Your task to perform on an android device: Search for bose quietcomfort 35 on newegg, select the first entry, add it to the cart, then select checkout. Image 0: 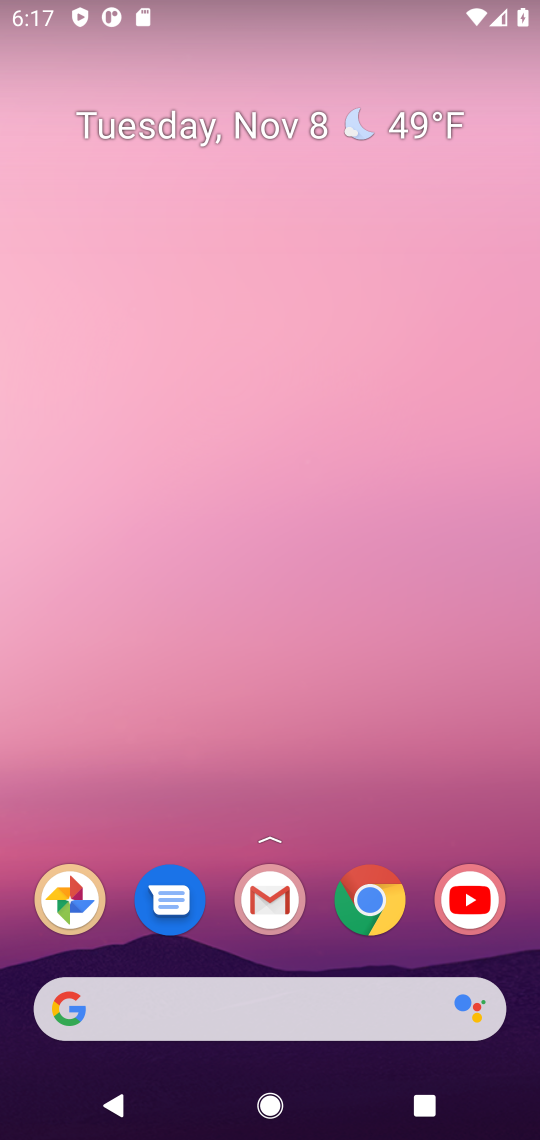
Step 0: drag from (159, 995) to (260, 183)
Your task to perform on an android device: Search for bose quietcomfort 35 on newegg, select the first entry, add it to the cart, then select checkout. Image 1: 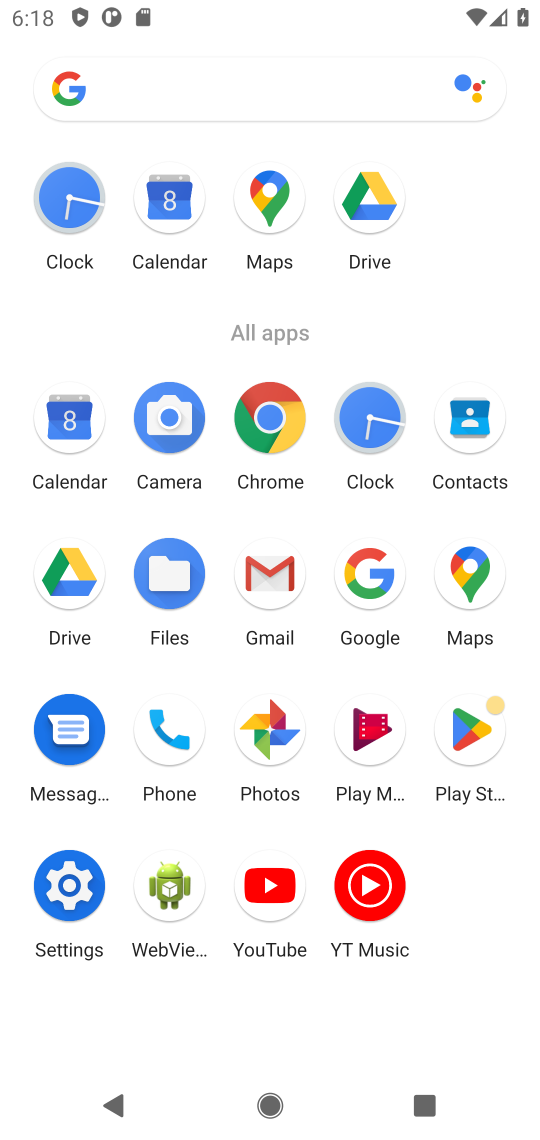
Step 1: click (374, 567)
Your task to perform on an android device: Search for bose quietcomfort 35 on newegg, select the first entry, add it to the cart, then select checkout. Image 2: 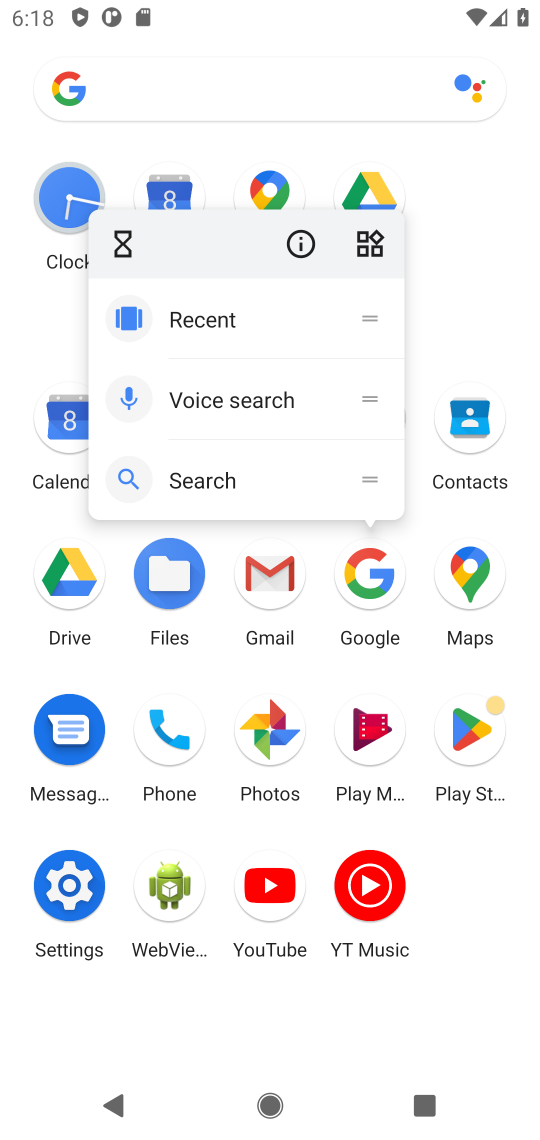
Step 2: click (374, 567)
Your task to perform on an android device: Search for bose quietcomfort 35 on newegg, select the first entry, add it to the cart, then select checkout. Image 3: 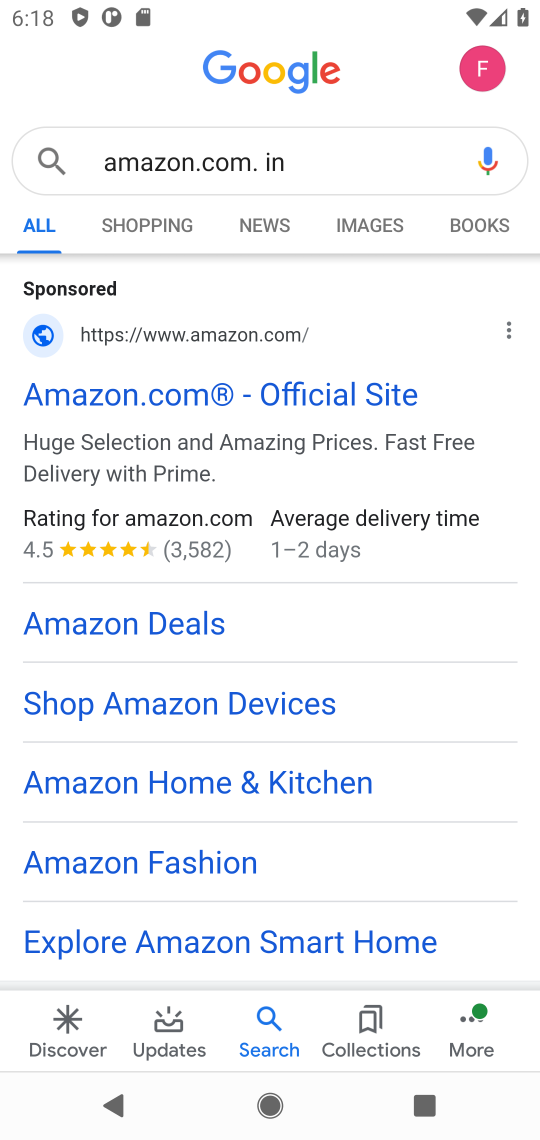
Step 3: click (343, 174)
Your task to perform on an android device: Search for bose quietcomfort 35 on newegg, select the first entry, add it to the cart, then select checkout. Image 4: 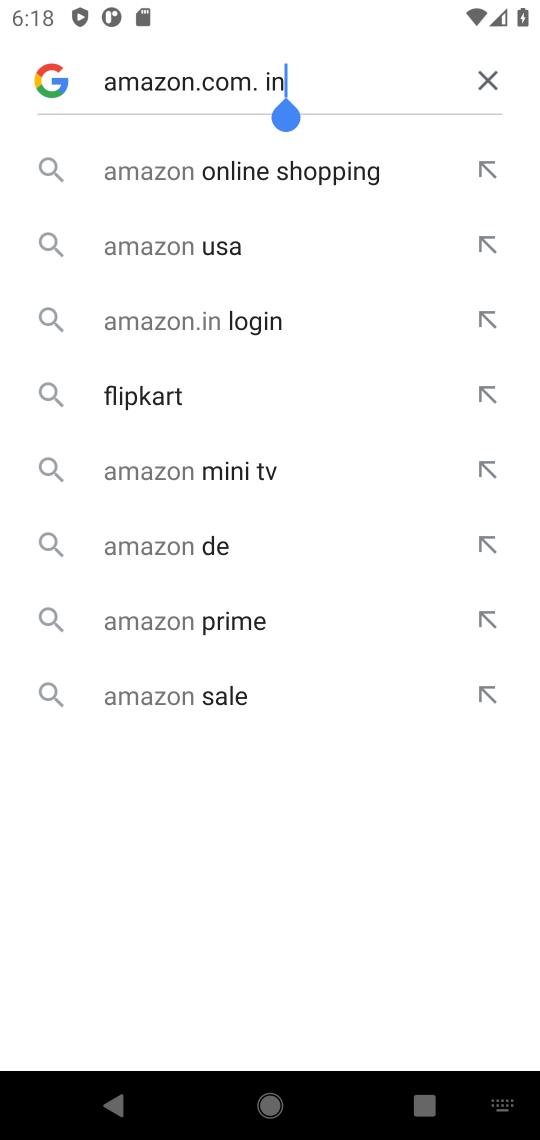
Step 4: click (483, 71)
Your task to perform on an android device: Search for bose quietcomfort 35 on newegg, select the first entry, add it to the cart, then select checkout. Image 5: 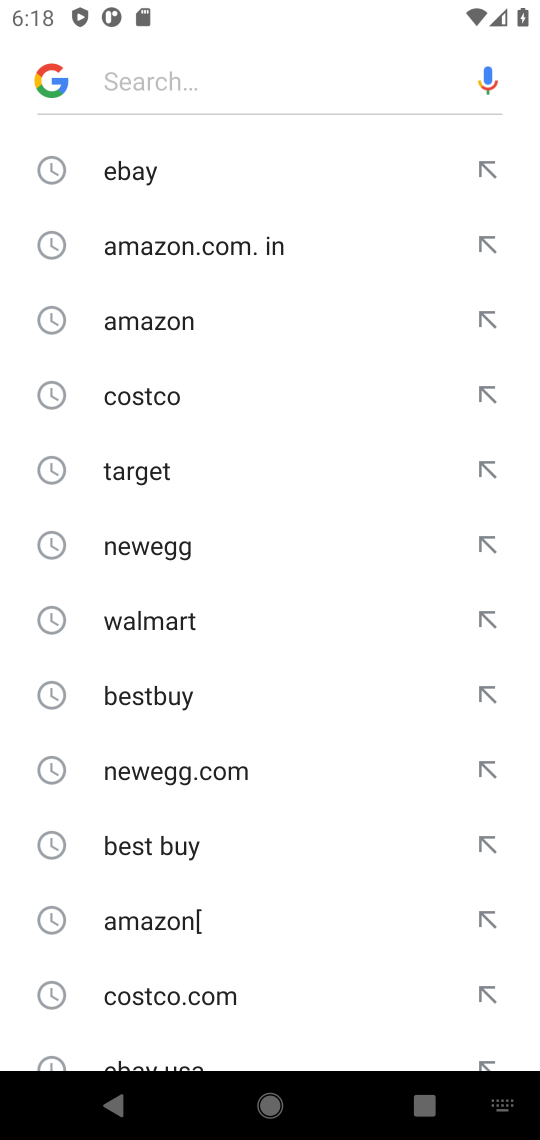
Step 5: click (206, 64)
Your task to perform on an android device: Search for bose quietcomfort 35 on newegg, select the first entry, add it to the cart, then select checkout. Image 6: 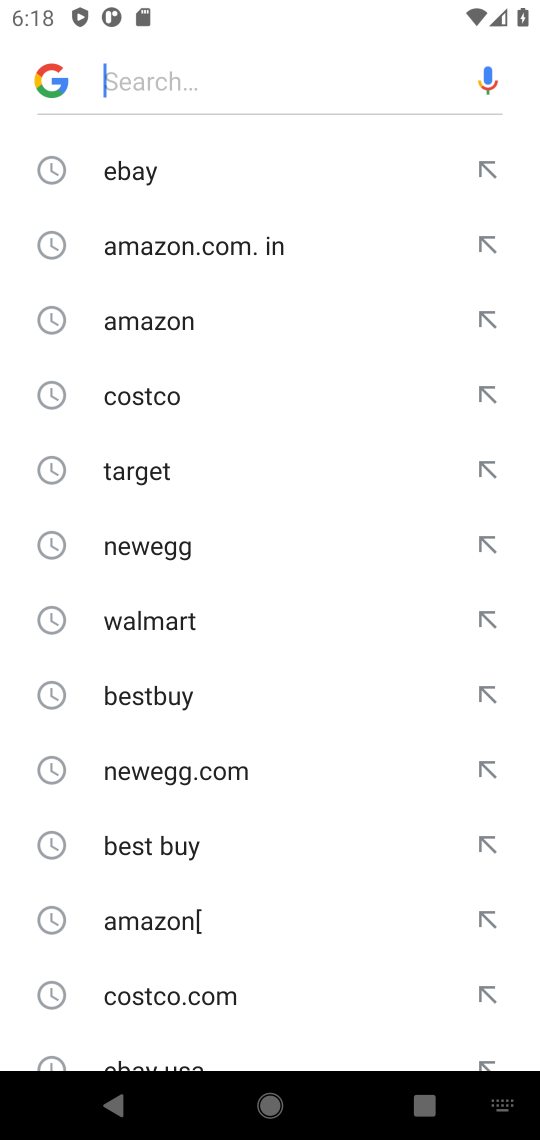
Step 6: type "newegg "
Your task to perform on an android device: Search for bose quietcomfort 35 on newegg, select the first entry, add it to the cart, then select checkout. Image 7: 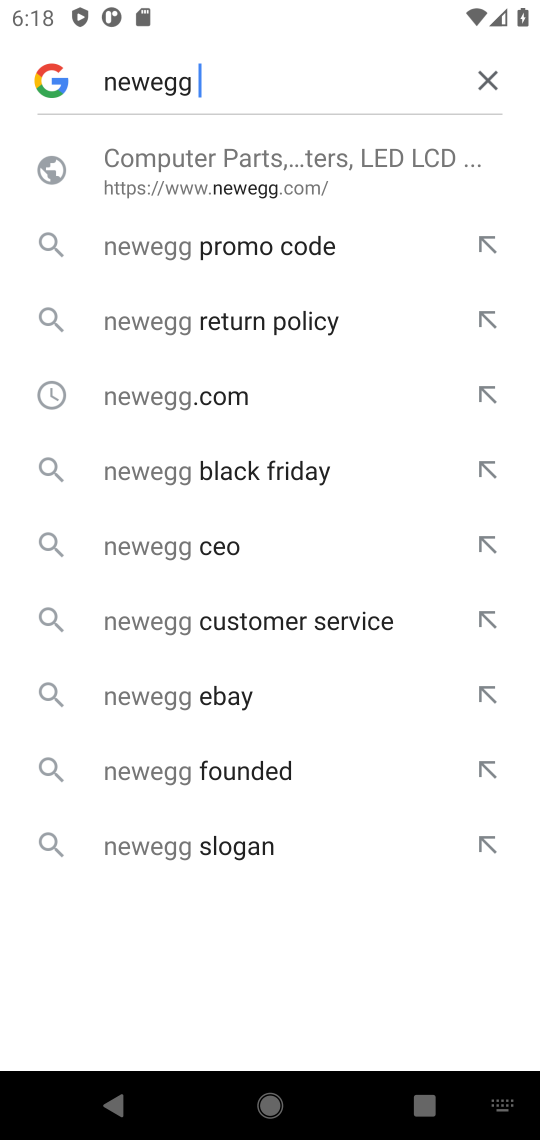
Step 7: click (201, 392)
Your task to perform on an android device: Search for bose quietcomfort 35 on newegg, select the first entry, add it to the cart, then select checkout. Image 8: 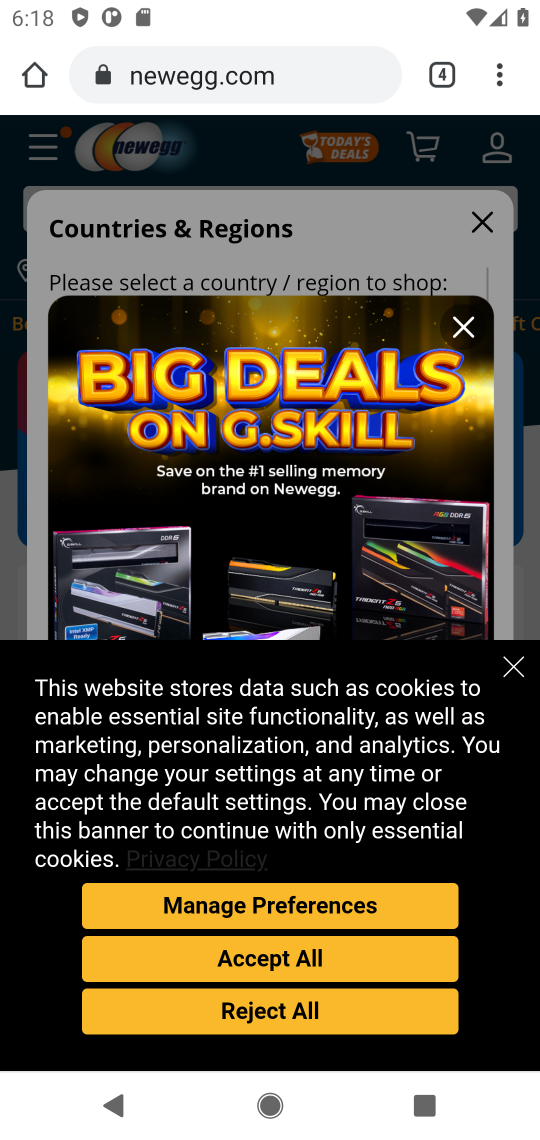
Step 8: click (504, 665)
Your task to perform on an android device: Search for bose quietcomfort 35 on newegg, select the first entry, add it to the cart, then select checkout. Image 9: 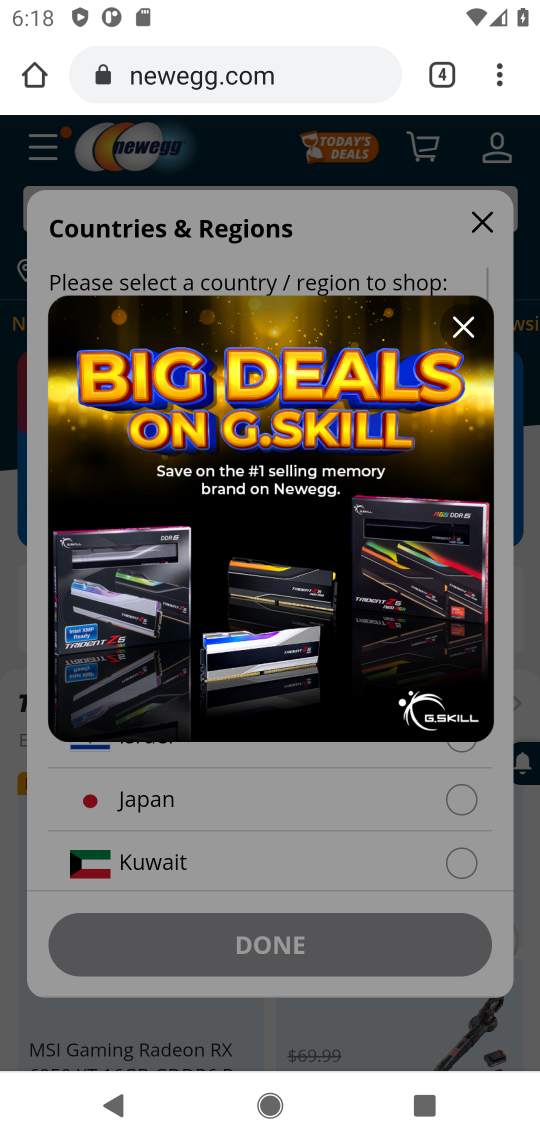
Step 9: click (478, 341)
Your task to perform on an android device: Search for bose quietcomfort 35 on newegg, select the first entry, add it to the cart, then select checkout. Image 10: 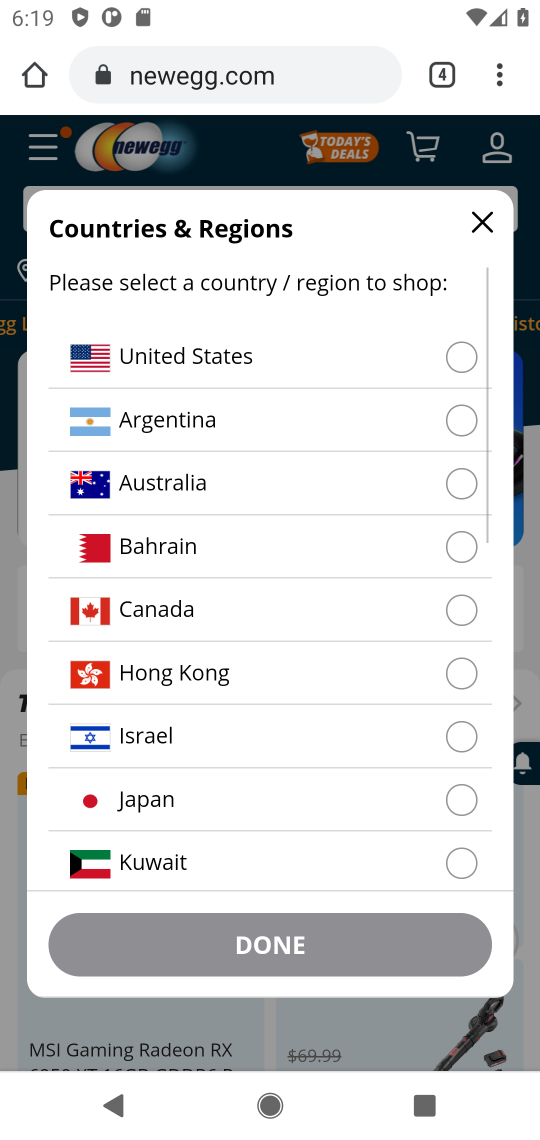
Step 10: click (490, 224)
Your task to perform on an android device: Search for bose quietcomfort 35 on newegg, select the first entry, add it to the cart, then select checkout. Image 11: 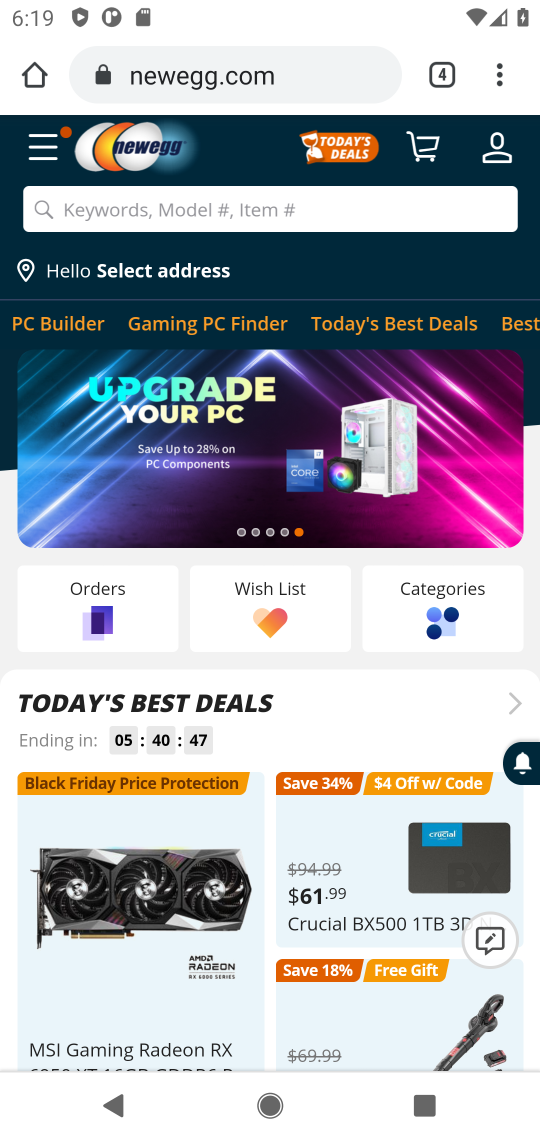
Step 11: click (265, 201)
Your task to perform on an android device: Search for bose quietcomfort 35 on newegg, select the first entry, add it to the cart, then select checkout. Image 12: 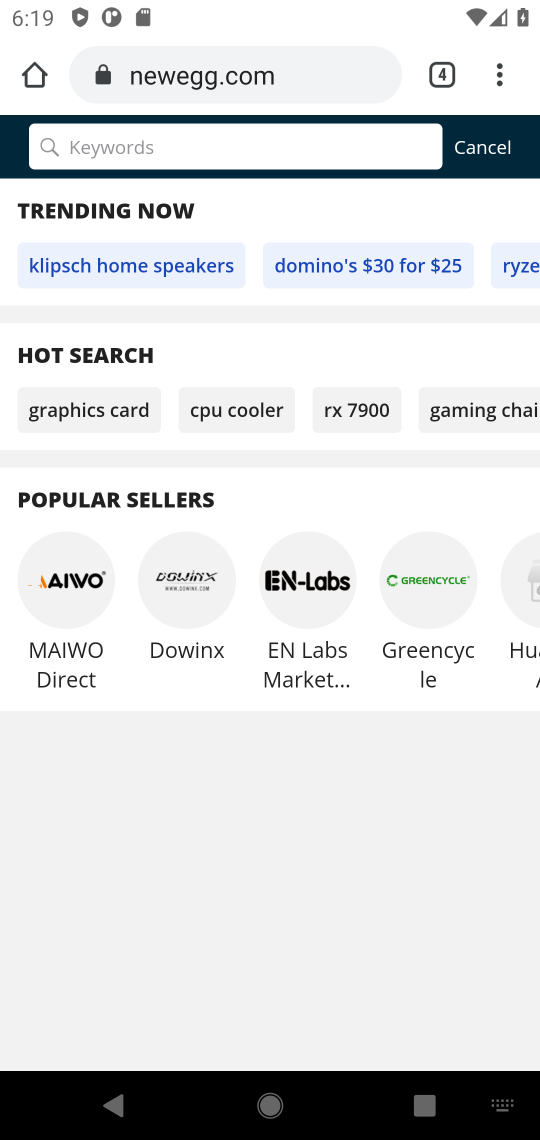
Step 12: type "bose quietcomfort 35  "
Your task to perform on an android device: Search for bose quietcomfort 35 on newegg, select the first entry, add it to the cart, then select checkout. Image 13: 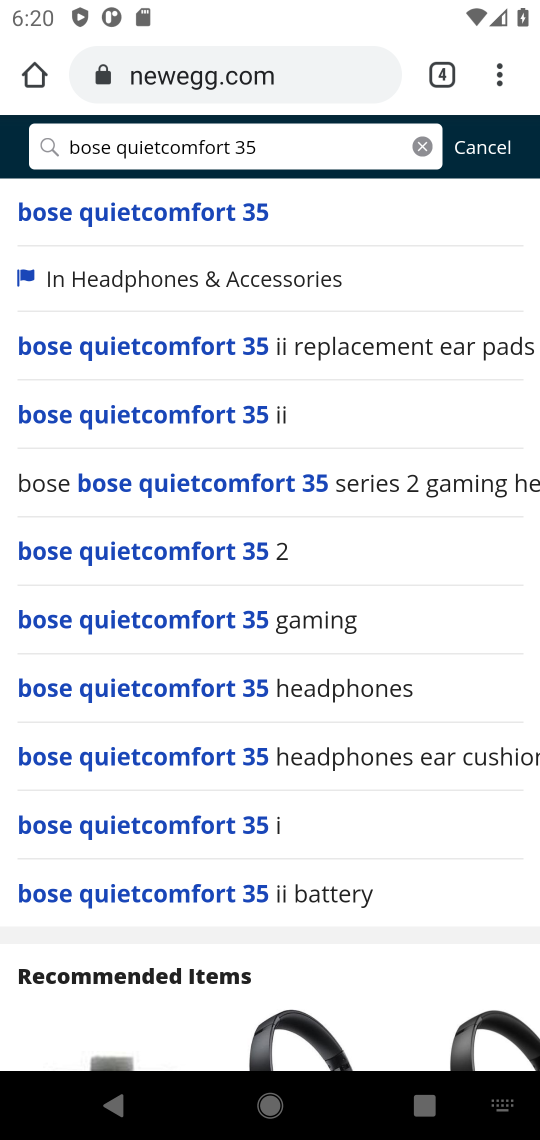
Step 13: click (186, 210)
Your task to perform on an android device: Search for bose quietcomfort 35 on newegg, select the first entry, add it to the cart, then select checkout. Image 14: 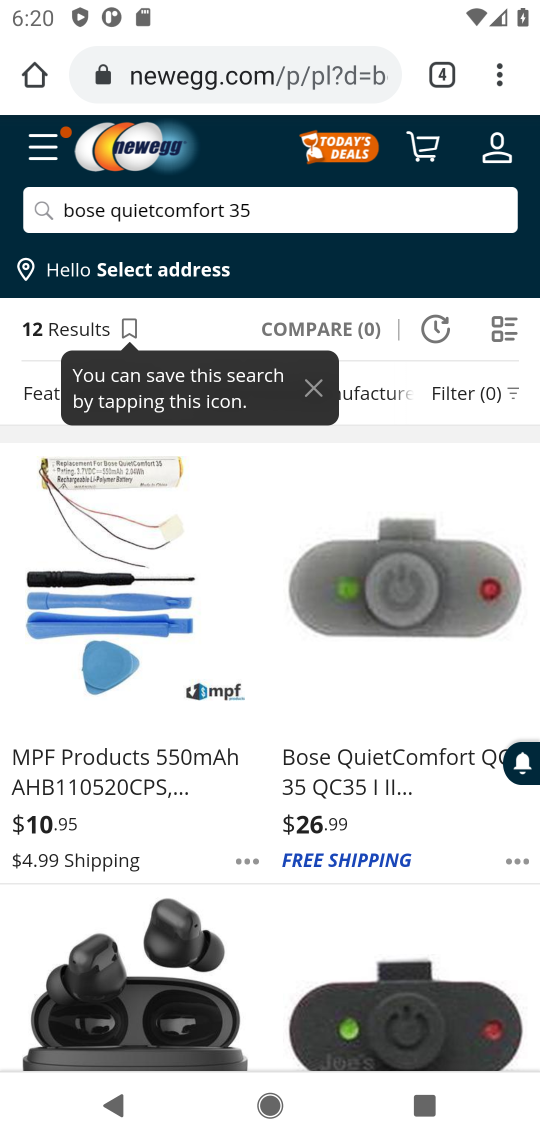
Step 14: click (173, 196)
Your task to perform on an android device: Search for bose quietcomfort 35 on newegg, select the first entry, add it to the cart, then select checkout. Image 15: 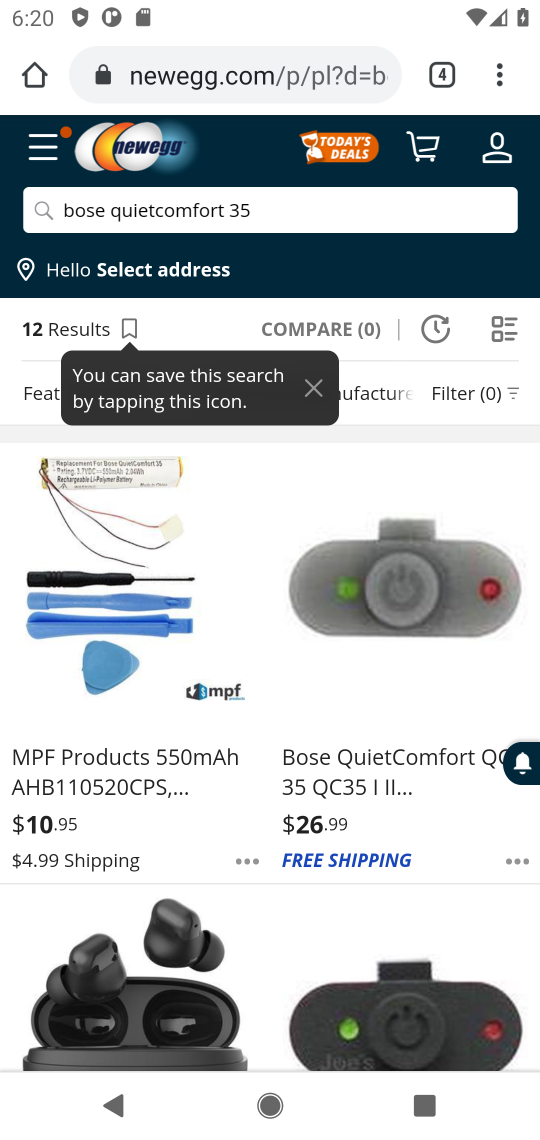
Step 15: click (189, 202)
Your task to perform on an android device: Search for bose quietcomfort 35 on newegg, select the first entry, add it to the cart, then select checkout. Image 16: 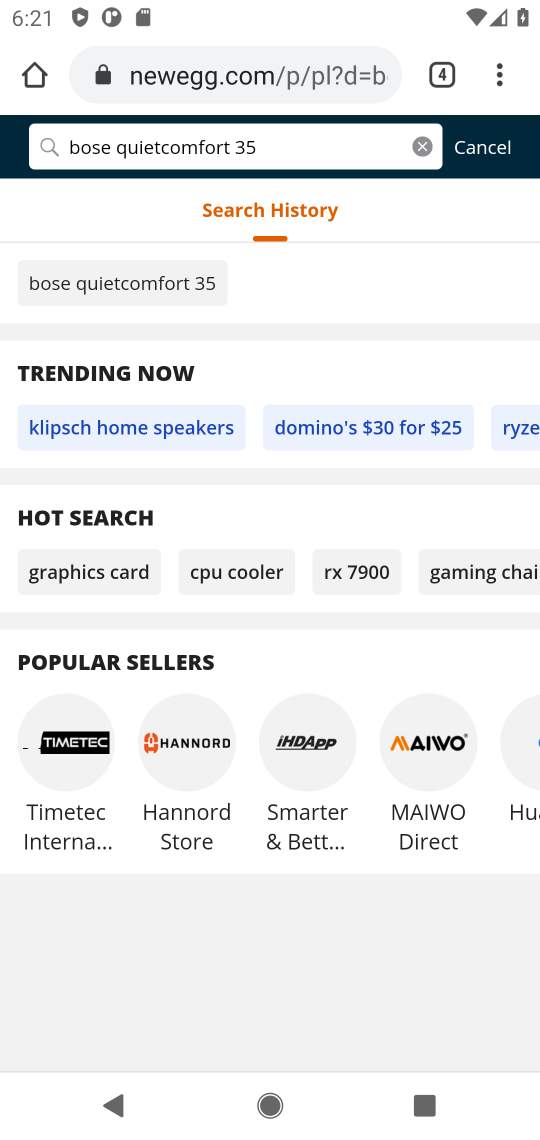
Step 16: click (75, 277)
Your task to perform on an android device: Search for bose quietcomfort 35 on newegg, select the first entry, add it to the cart, then select checkout. Image 17: 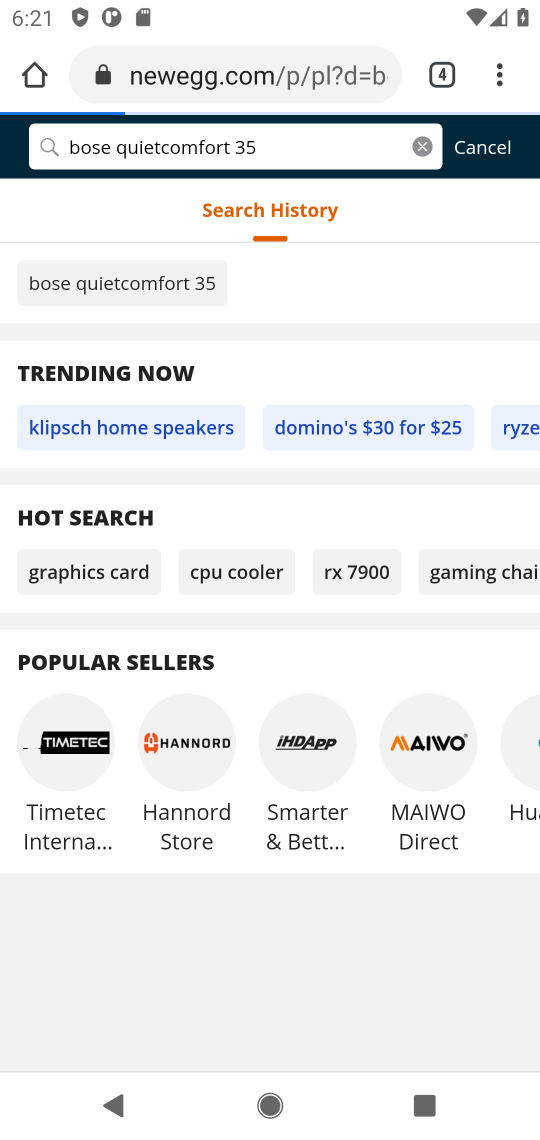
Step 17: click (80, 280)
Your task to perform on an android device: Search for bose quietcomfort 35 on newegg, select the first entry, add it to the cart, then select checkout. Image 18: 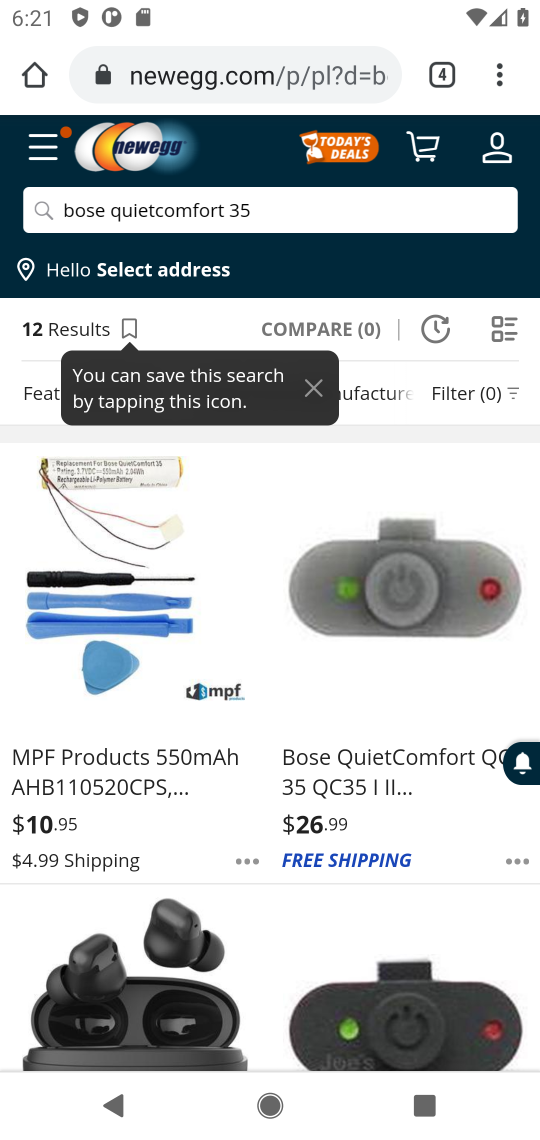
Step 18: click (372, 749)
Your task to perform on an android device: Search for bose quietcomfort 35 on newegg, select the first entry, add it to the cart, then select checkout. Image 19: 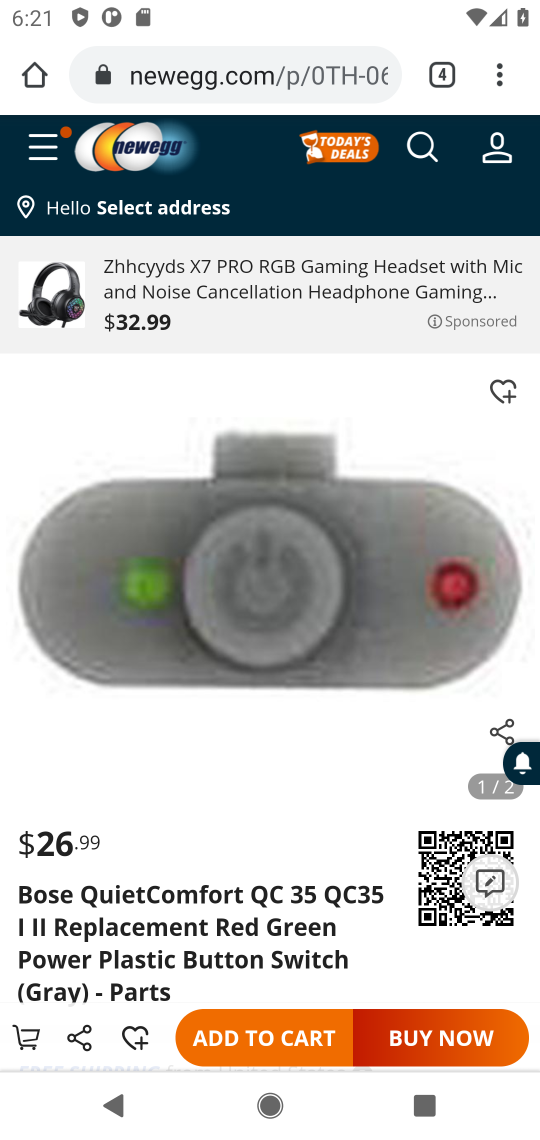
Step 19: click (250, 1024)
Your task to perform on an android device: Search for bose quietcomfort 35 on newegg, select the first entry, add it to the cart, then select checkout. Image 20: 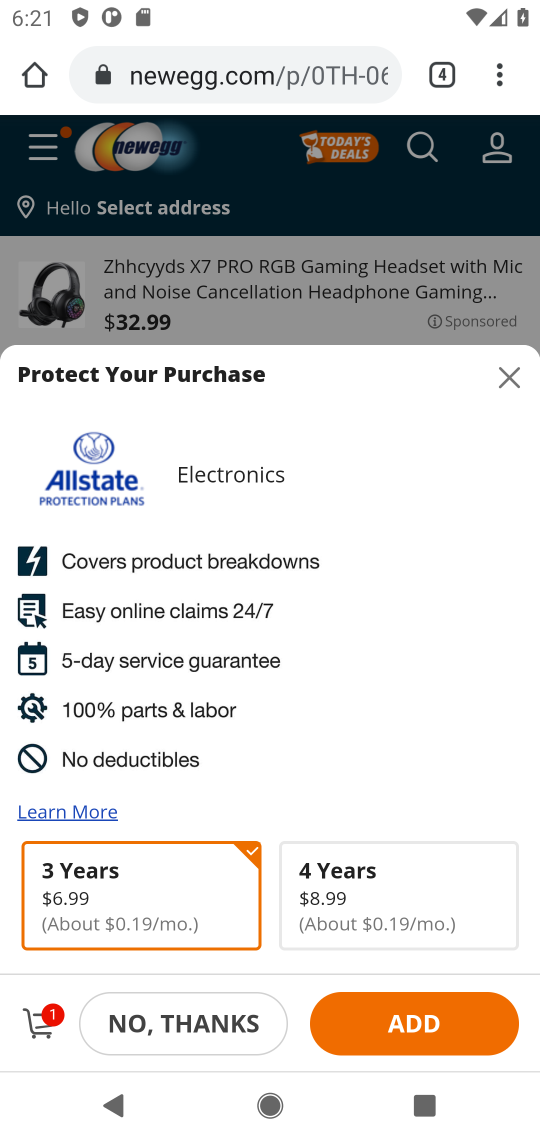
Step 20: task complete